Your task to perform on an android device: allow notifications from all sites in the chrome app Image 0: 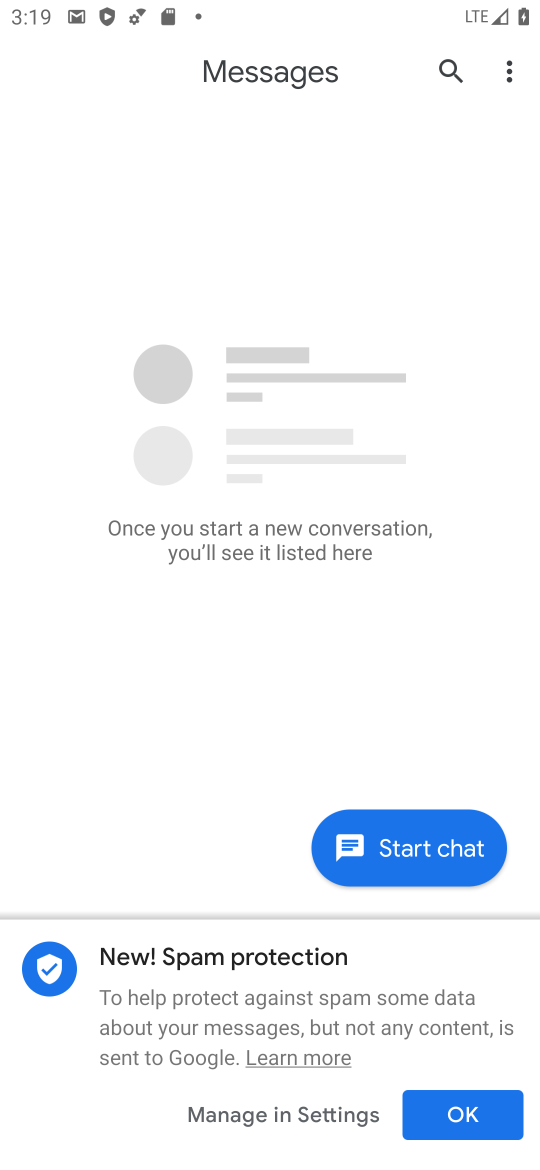
Step 0: press home button
Your task to perform on an android device: allow notifications from all sites in the chrome app Image 1: 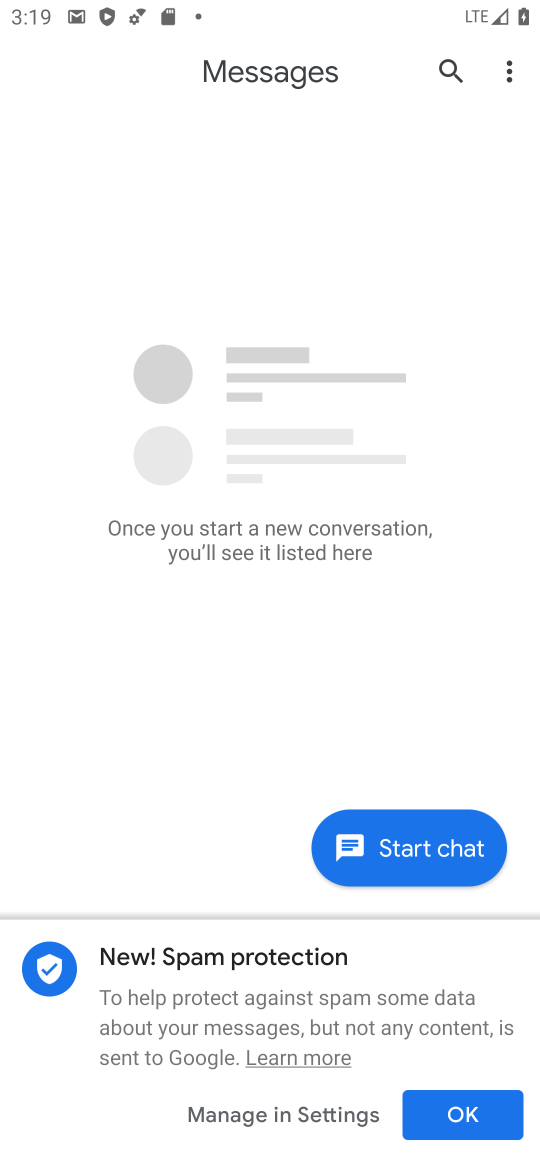
Step 1: press home button
Your task to perform on an android device: allow notifications from all sites in the chrome app Image 2: 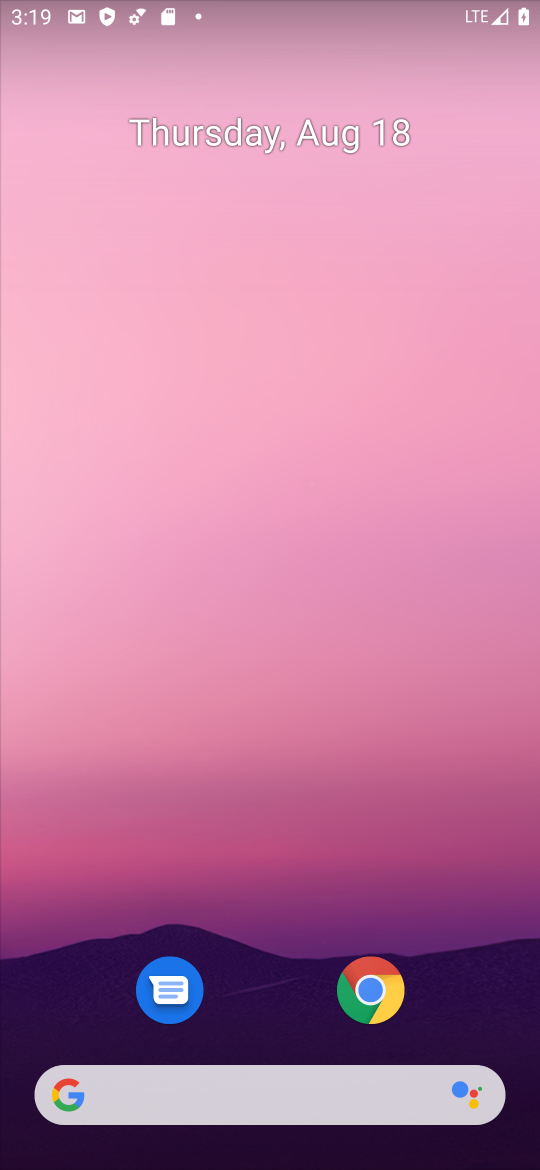
Step 2: drag from (277, 736) to (463, 92)
Your task to perform on an android device: allow notifications from all sites in the chrome app Image 3: 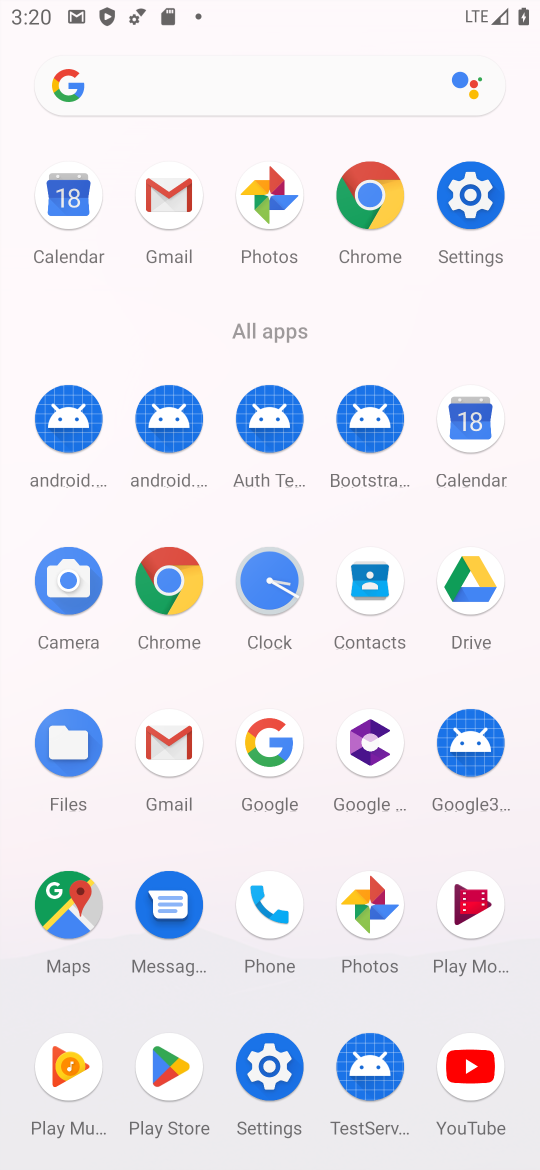
Step 3: click (174, 591)
Your task to perform on an android device: allow notifications from all sites in the chrome app Image 4: 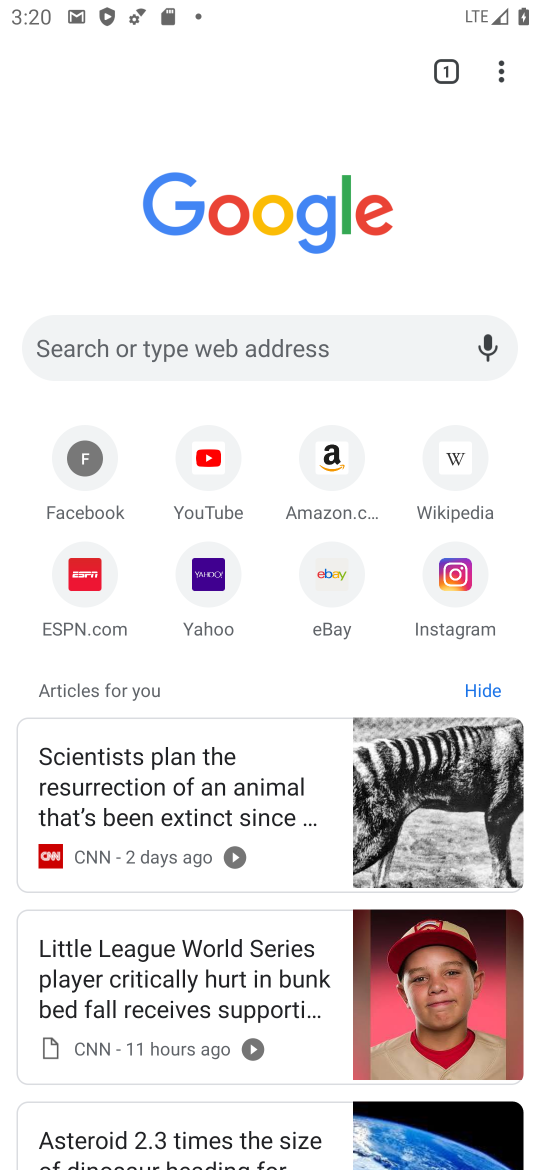
Step 4: drag from (511, 64) to (261, 598)
Your task to perform on an android device: allow notifications from all sites in the chrome app Image 5: 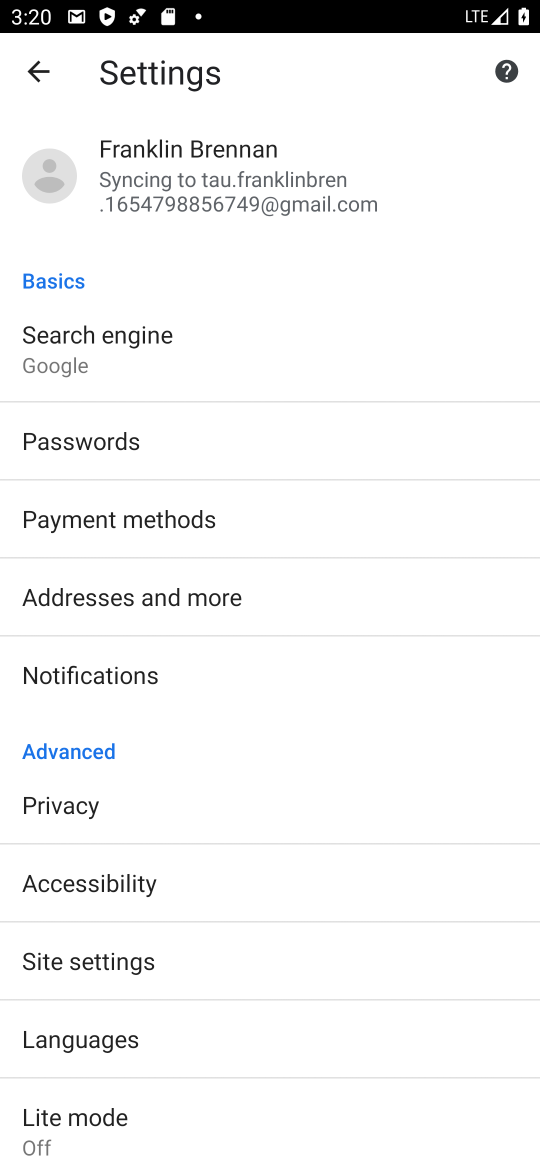
Step 5: drag from (278, 866) to (397, 305)
Your task to perform on an android device: allow notifications from all sites in the chrome app Image 6: 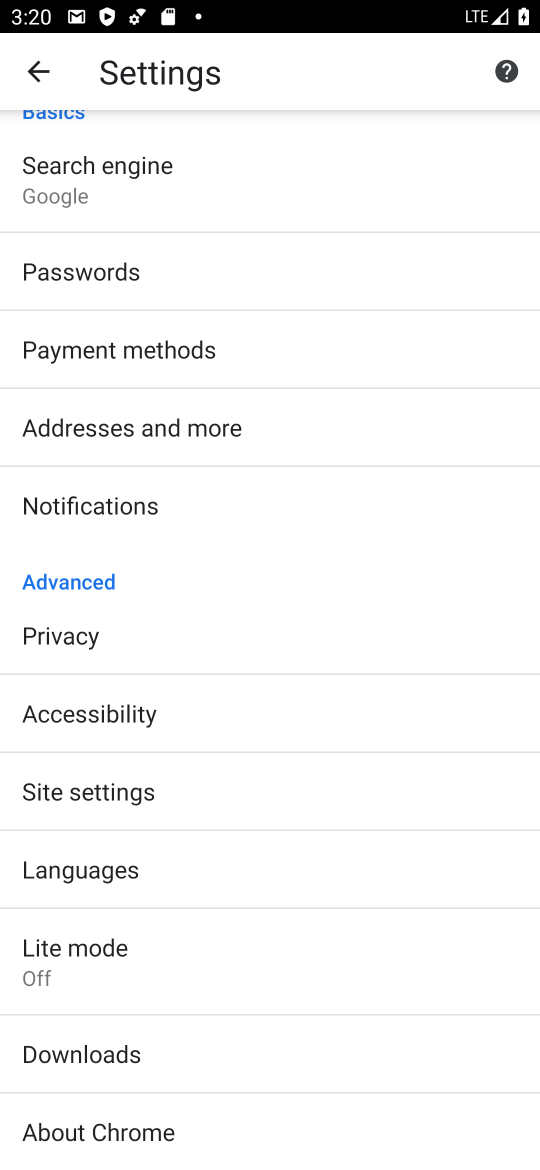
Step 6: click (136, 785)
Your task to perform on an android device: allow notifications from all sites in the chrome app Image 7: 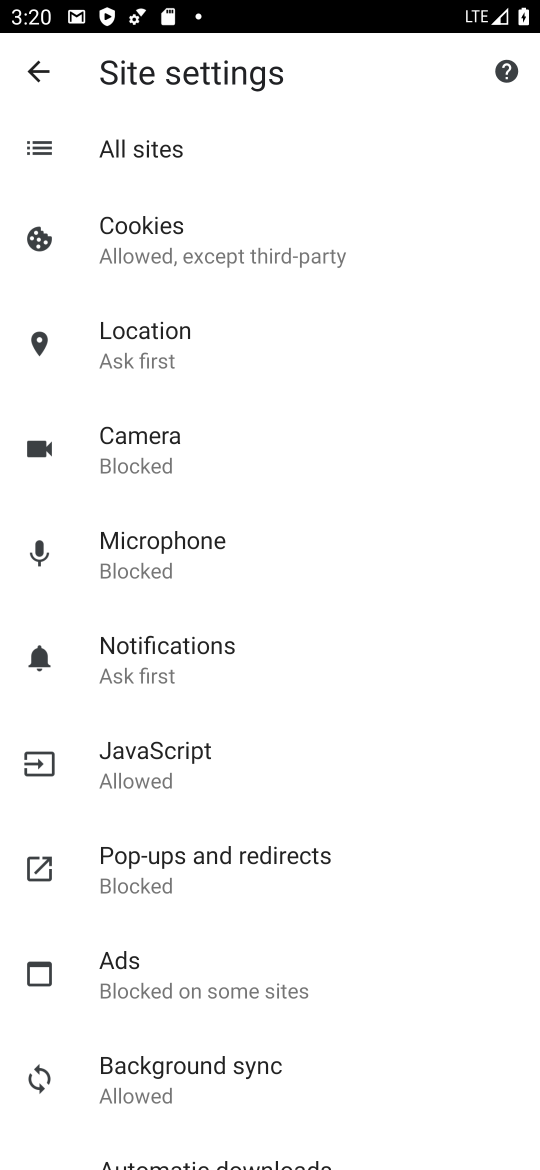
Step 7: click (189, 664)
Your task to perform on an android device: allow notifications from all sites in the chrome app Image 8: 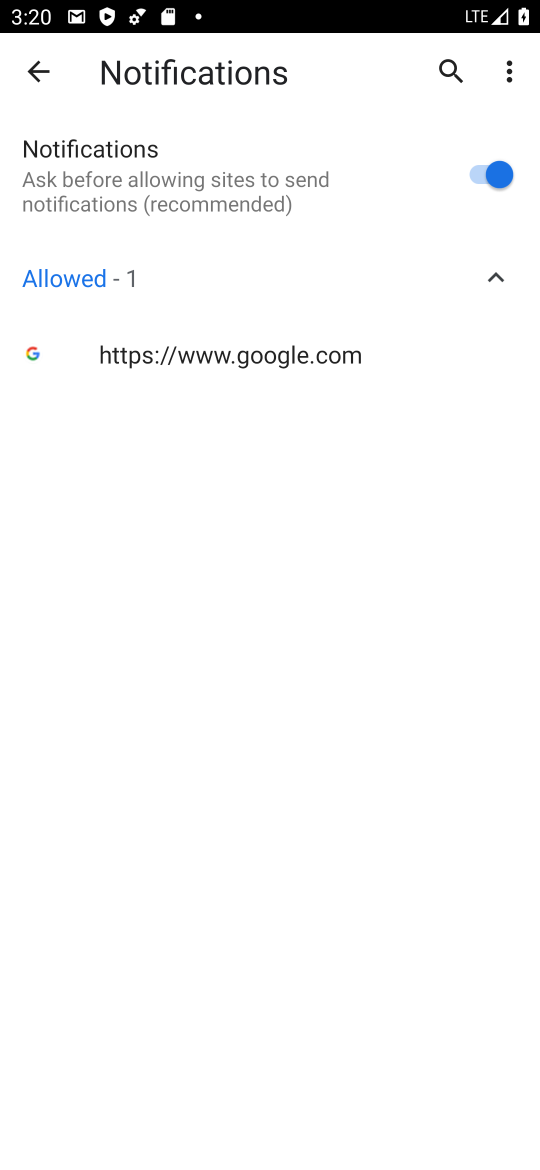
Step 8: task complete